Your task to perform on an android device: open chrome privacy settings Image 0: 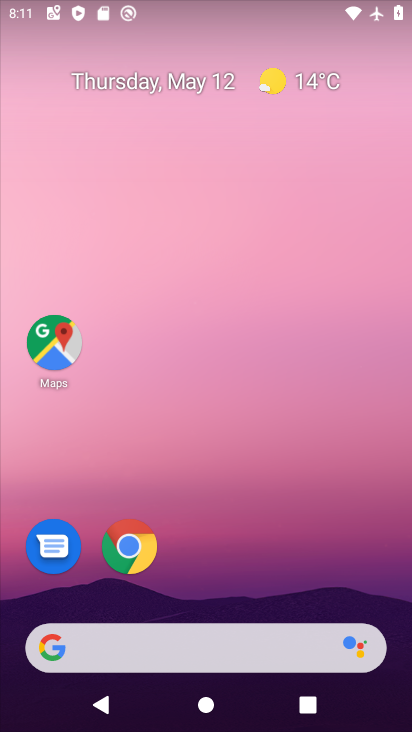
Step 0: drag from (255, 385) to (356, 105)
Your task to perform on an android device: open chrome privacy settings Image 1: 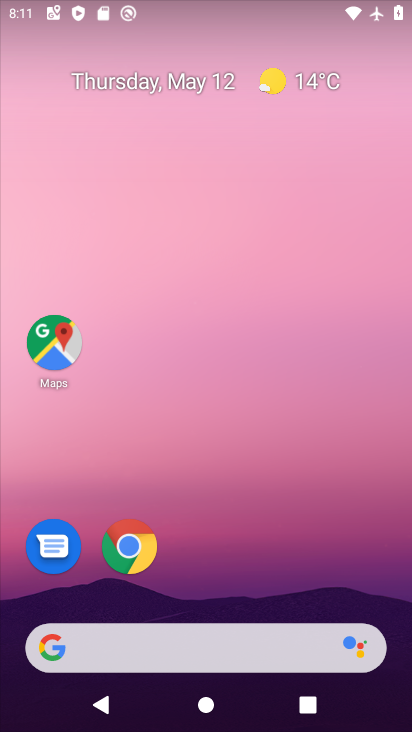
Step 1: click (128, 553)
Your task to perform on an android device: open chrome privacy settings Image 2: 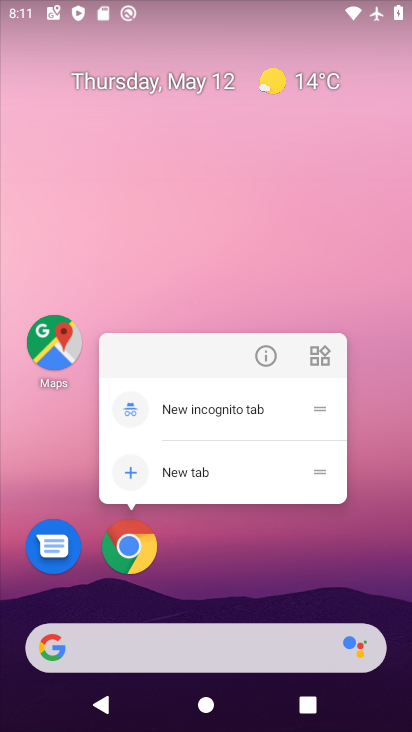
Step 2: click (138, 542)
Your task to perform on an android device: open chrome privacy settings Image 3: 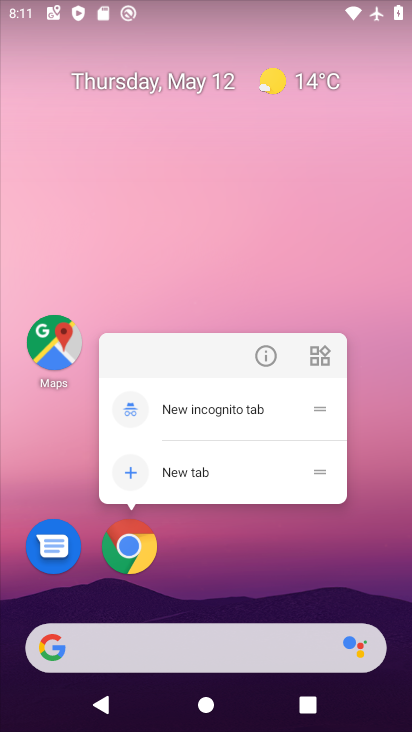
Step 3: click (125, 554)
Your task to perform on an android device: open chrome privacy settings Image 4: 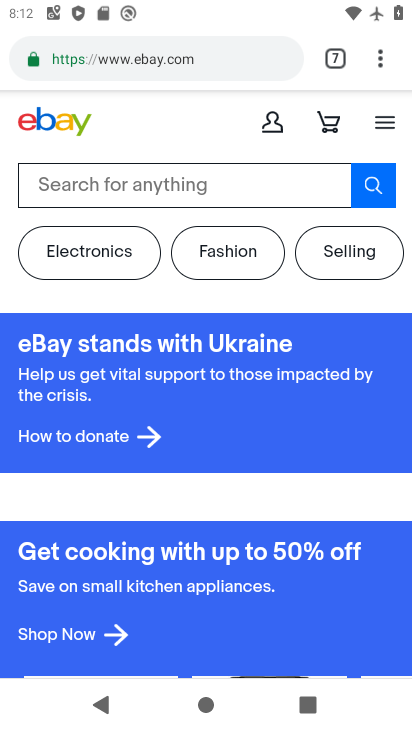
Step 4: drag from (382, 60) to (201, 567)
Your task to perform on an android device: open chrome privacy settings Image 5: 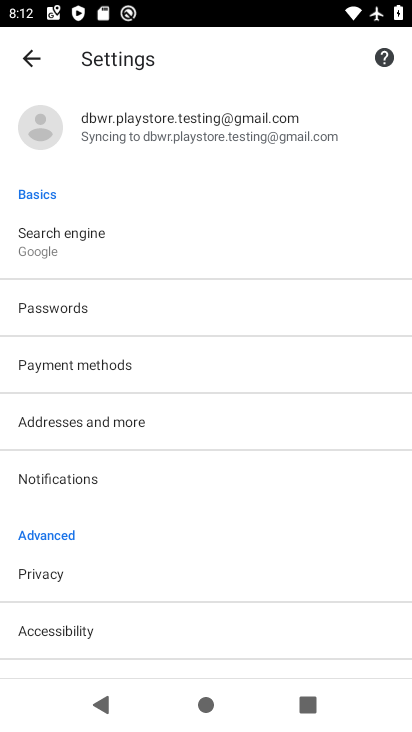
Step 5: click (61, 573)
Your task to perform on an android device: open chrome privacy settings Image 6: 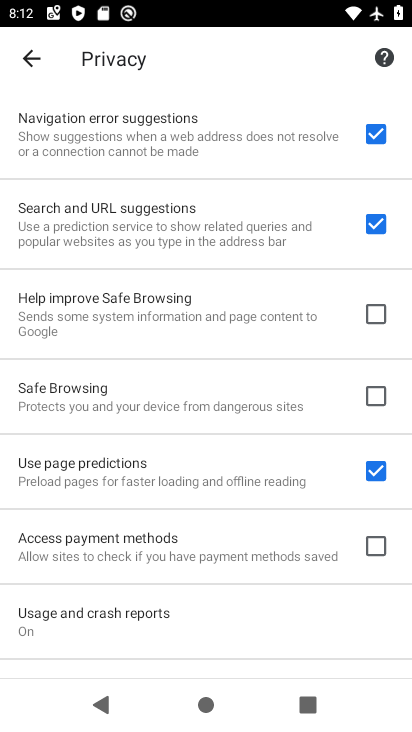
Step 6: task complete